Your task to perform on an android device: Check the weather Image 0: 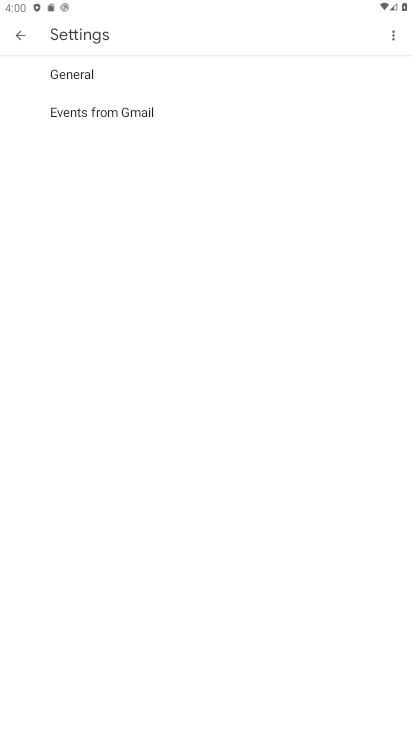
Step 0: press home button
Your task to perform on an android device: Check the weather Image 1: 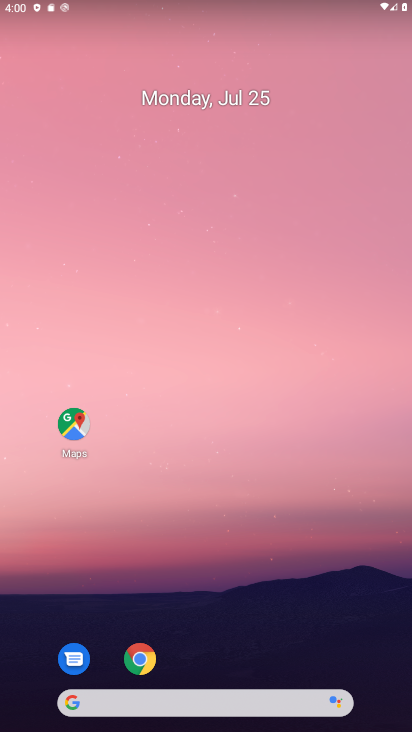
Step 1: drag from (170, 670) to (184, 200)
Your task to perform on an android device: Check the weather Image 2: 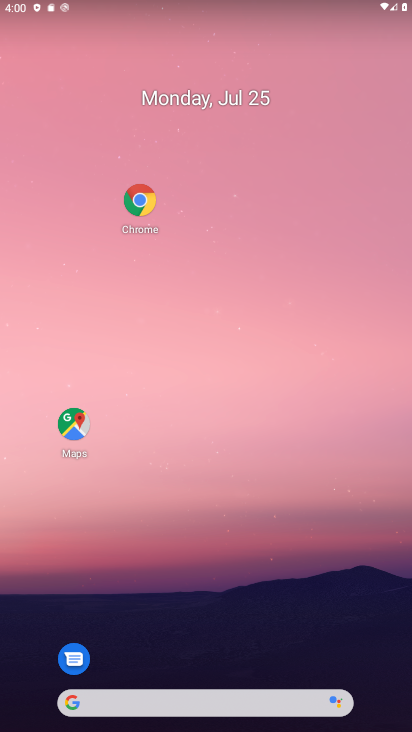
Step 2: drag from (201, 639) to (205, 157)
Your task to perform on an android device: Check the weather Image 3: 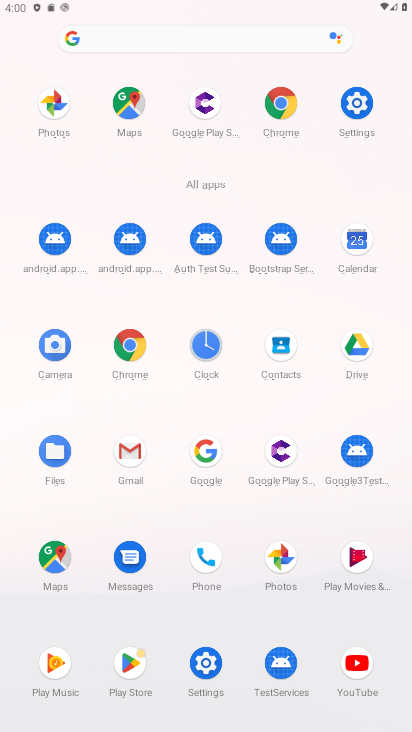
Step 3: click (208, 450)
Your task to perform on an android device: Check the weather Image 4: 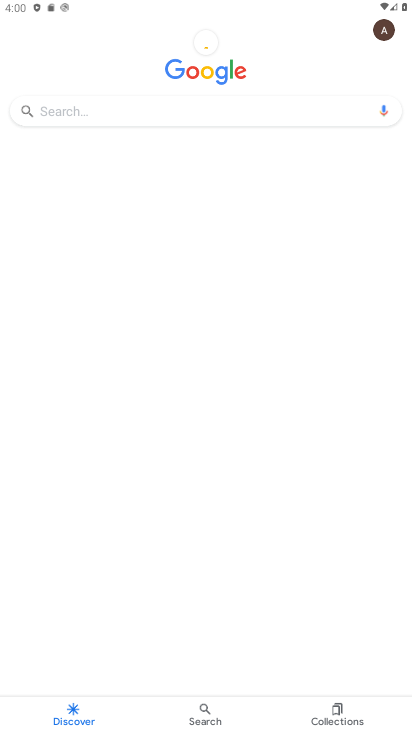
Step 4: click (92, 122)
Your task to perform on an android device: Check the weather Image 5: 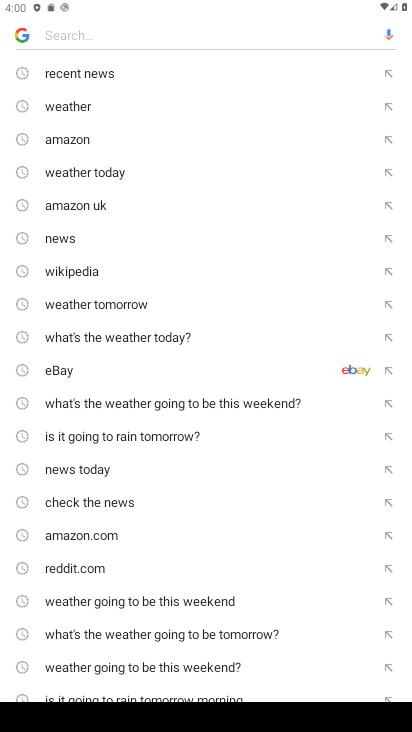
Step 5: click (91, 102)
Your task to perform on an android device: Check the weather Image 6: 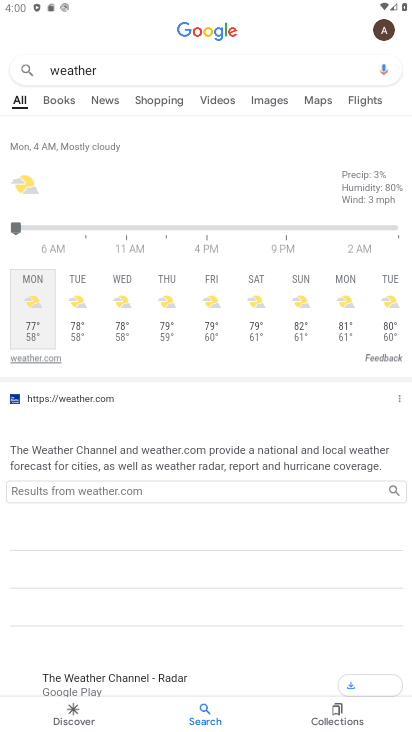
Step 6: task complete